Your task to perform on an android device: toggle javascript in the chrome app Image 0: 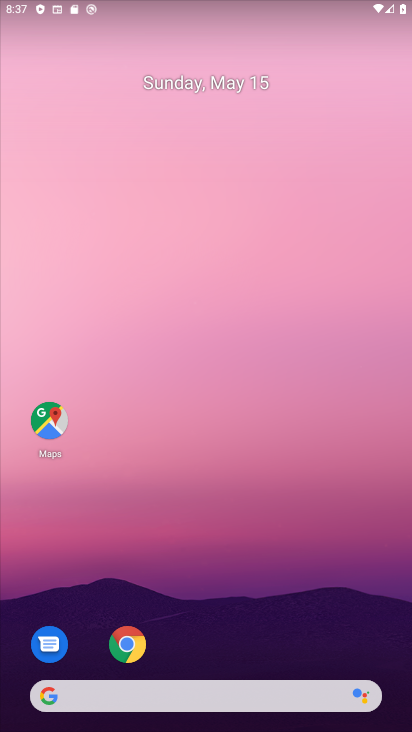
Step 0: click (121, 635)
Your task to perform on an android device: toggle javascript in the chrome app Image 1: 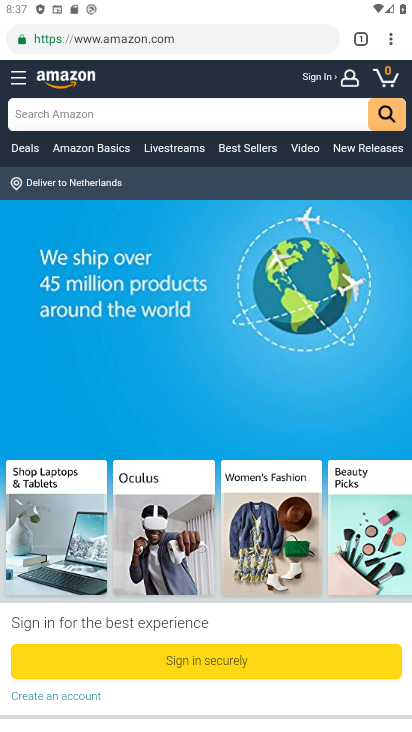
Step 1: click (386, 38)
Your task to perform on an android device: toggle javascript in the chrome app Image 2: 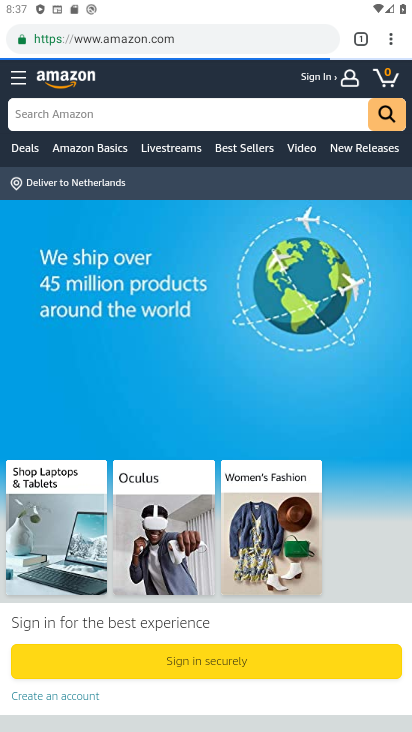
Step 2: drag from (396, 35) to (250, 474)
Your task to perform on an android device: toggle javascript in the chrome app Image 3: 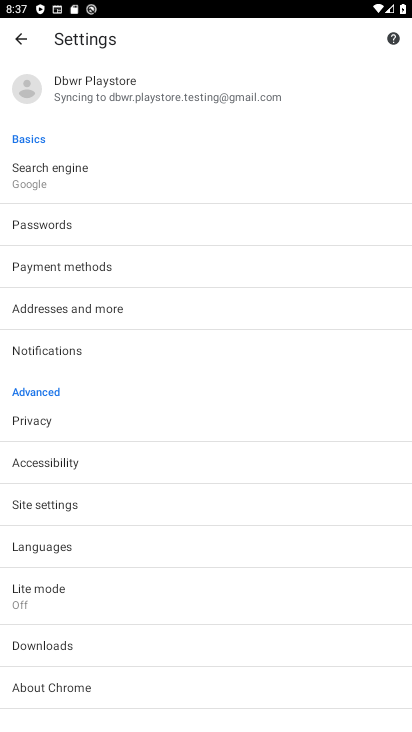
Step 3: click (37, 503)
Your task to perform on an android device: toggle javascript in the chrome app Image 4: 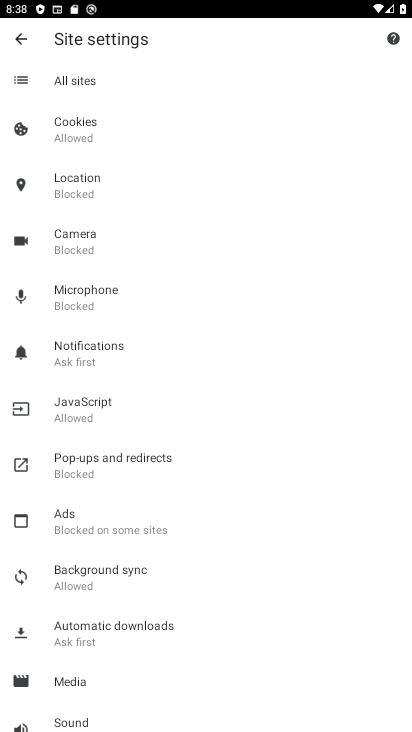
Step 4: click (101, 387)
Your task to perform on an android device: toggle javascript in the chrome app Image 5: 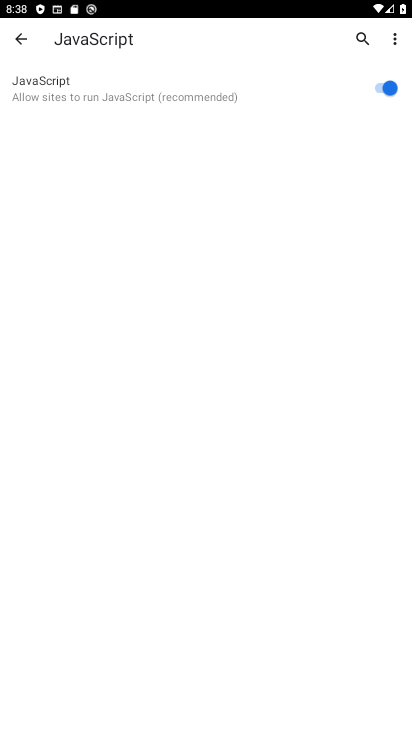
Step 5: click (386, 87)
Your task to perform on an android device: toggle javascript in the chrome app Image 6: 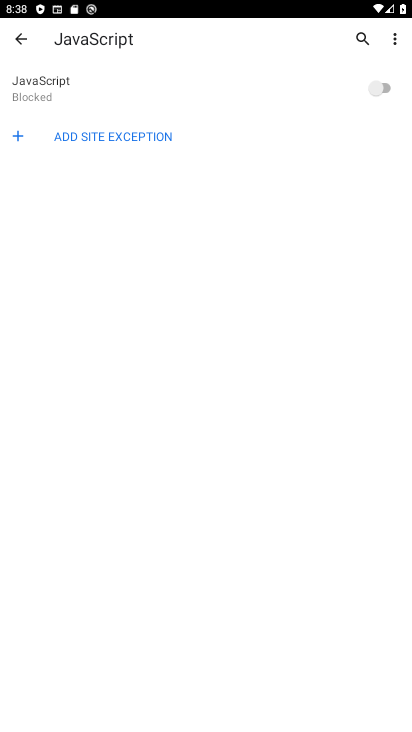
Step 6: task complete